Your task to perform on an android device: Is it going to rain today? Image 0: 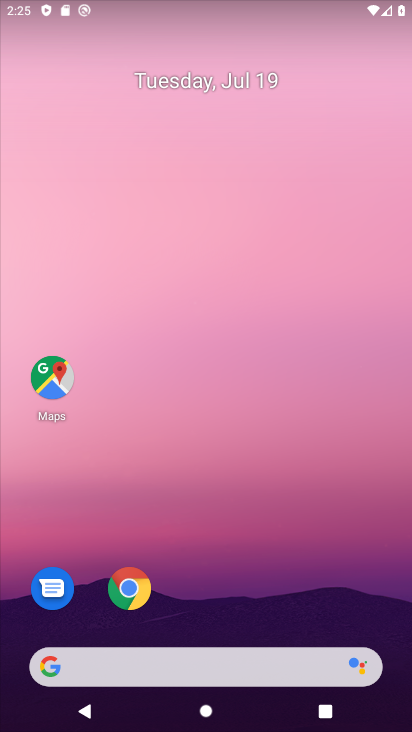
Step 0: drag from (155, 634) to (166, 291)
Your task to perform on an android device: Is it going to rain today? Image 1: 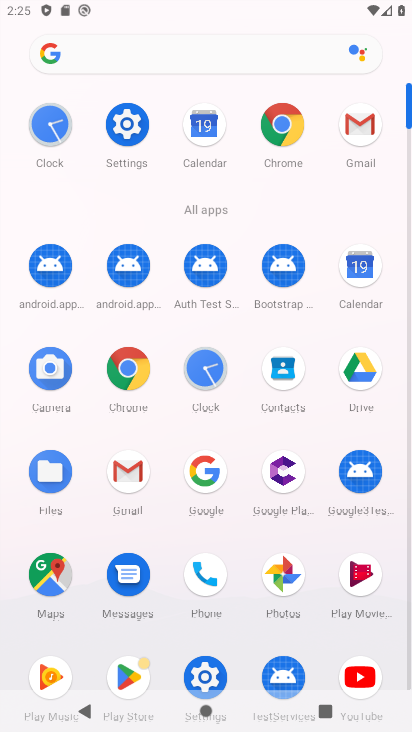
Step 1: click (209, 481)
Your task to perform on an android device: Is it going to rain today? Image 2: 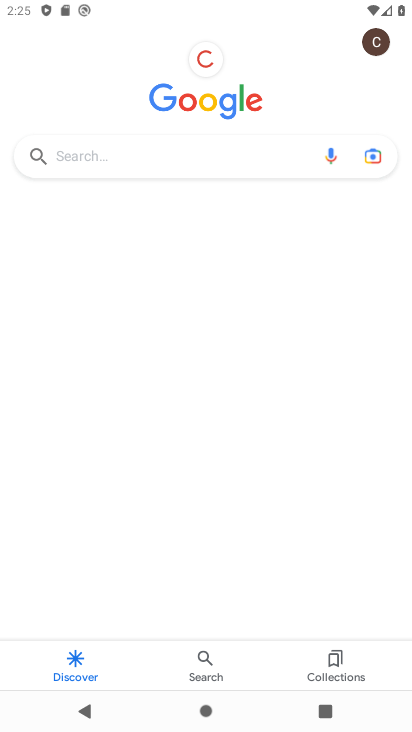
Step 2: click (153, 156)
Your task to perform on an android device: Is it going to rain today? Image 3: 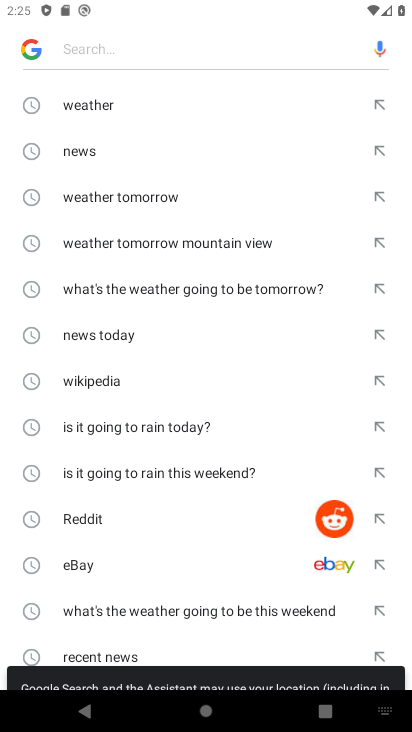
Step 3: click (72, 96)
Your task to perform on an android device: Is it going to rain today? Image 4: 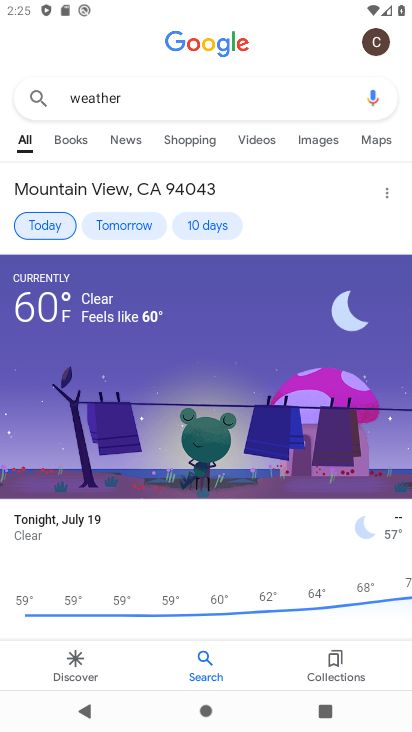
Step 4: task complete